Your task to perform on an android device: open the mobile data screen to see how much data has been used Image 0: 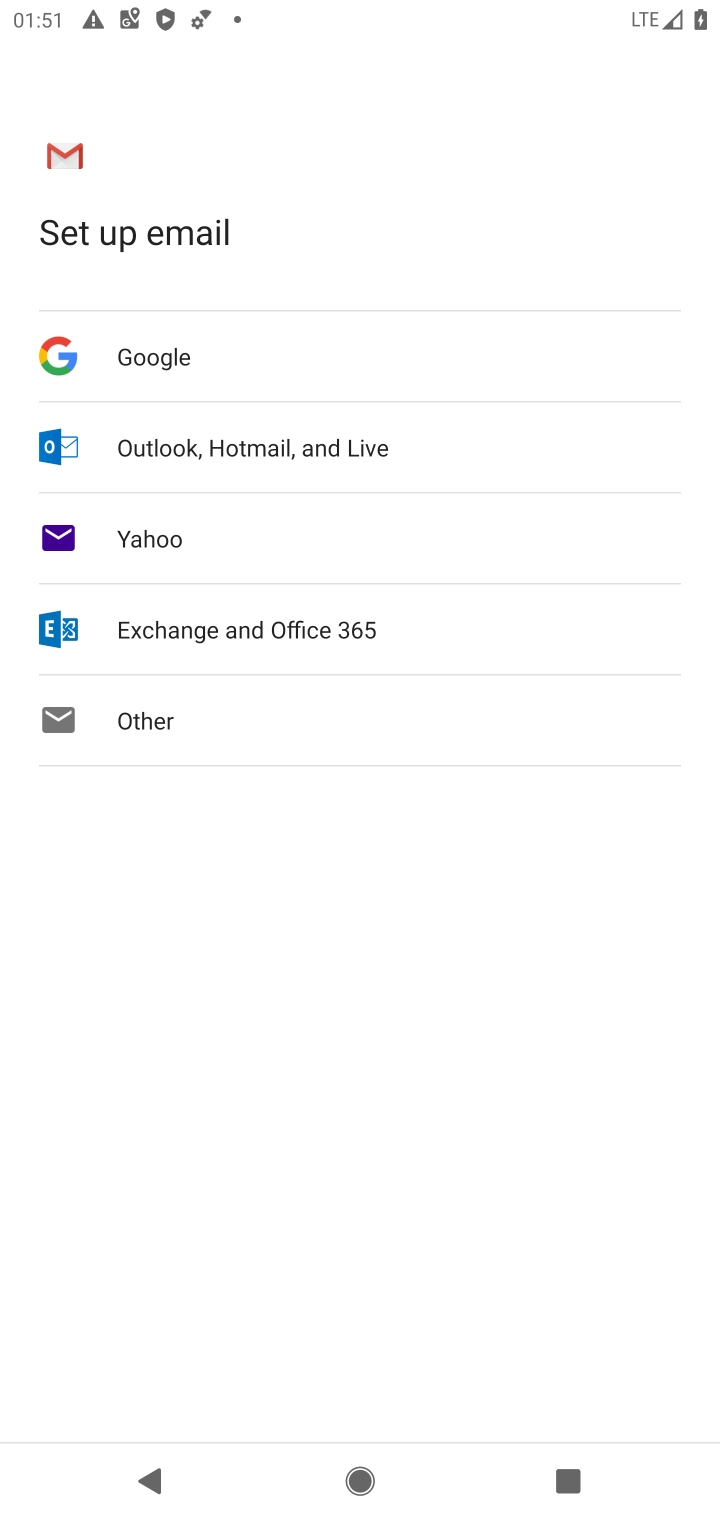
Step 0: press home button
Your task to perform on an android device: open the mobile data screen to see how much data has been used Image 1: 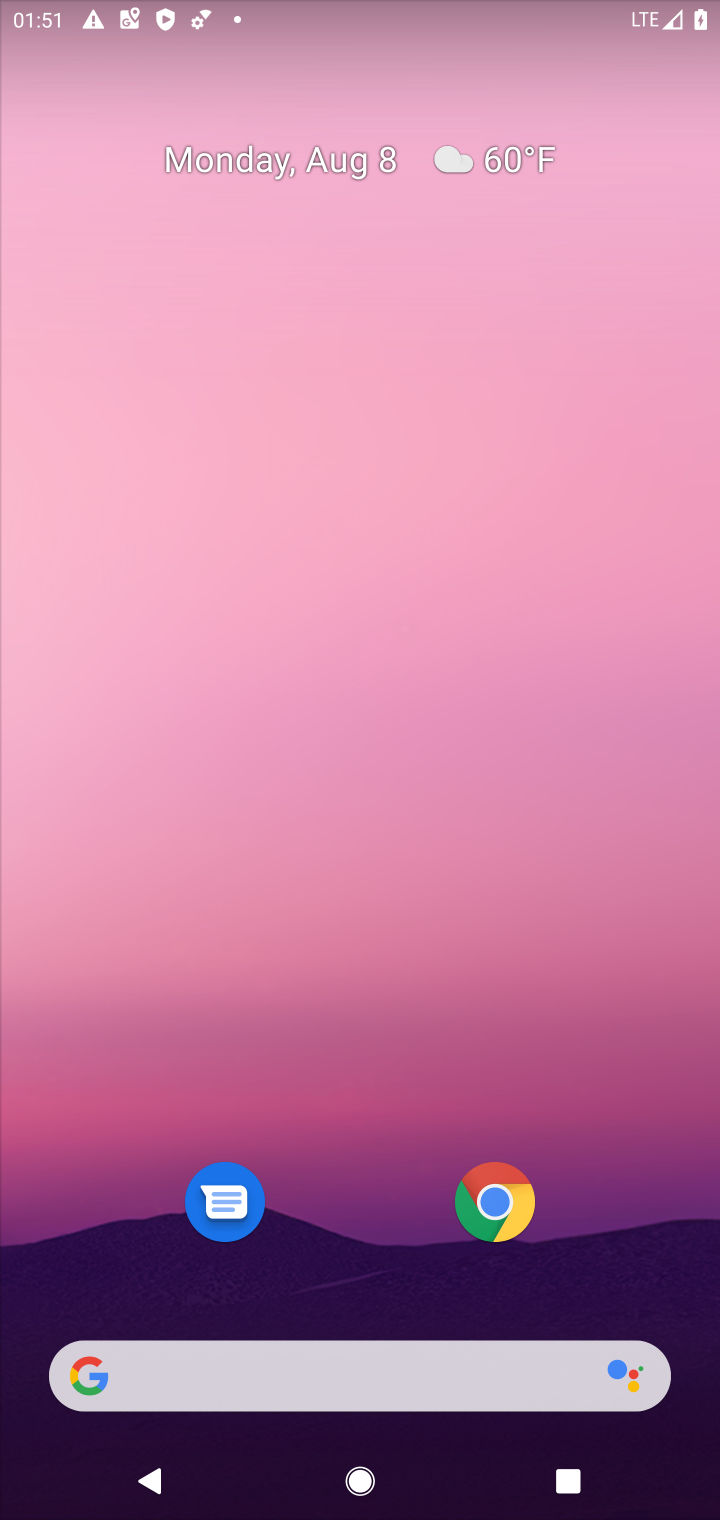
Step 1: drag from (315, 1287) to (338, 25)
Your task to perform on an android device: open the mobile data screen to see how much data has been used Image 2: 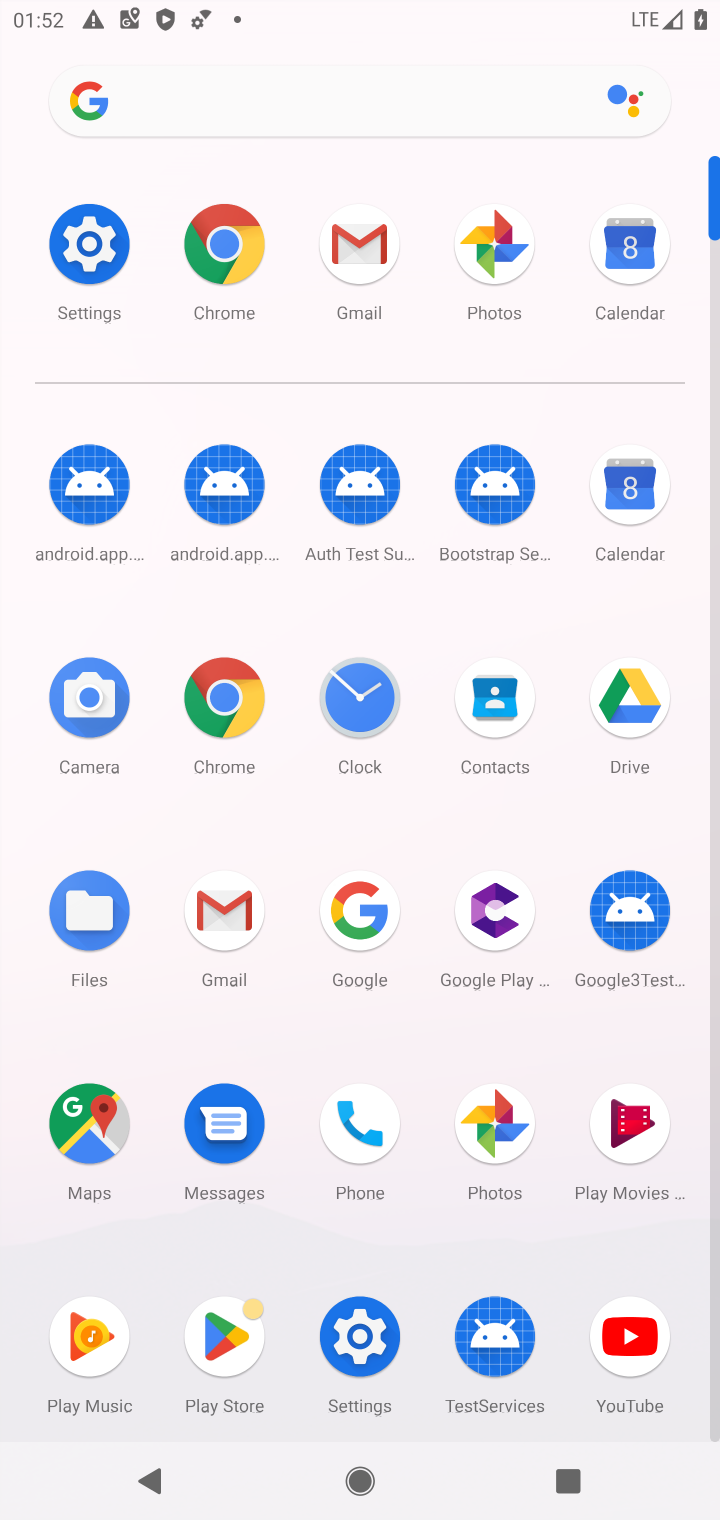
Step 2: click (366, 1361)
Your task to perform on an android device: open the mobile data screen to see how much data has been used Image 3: 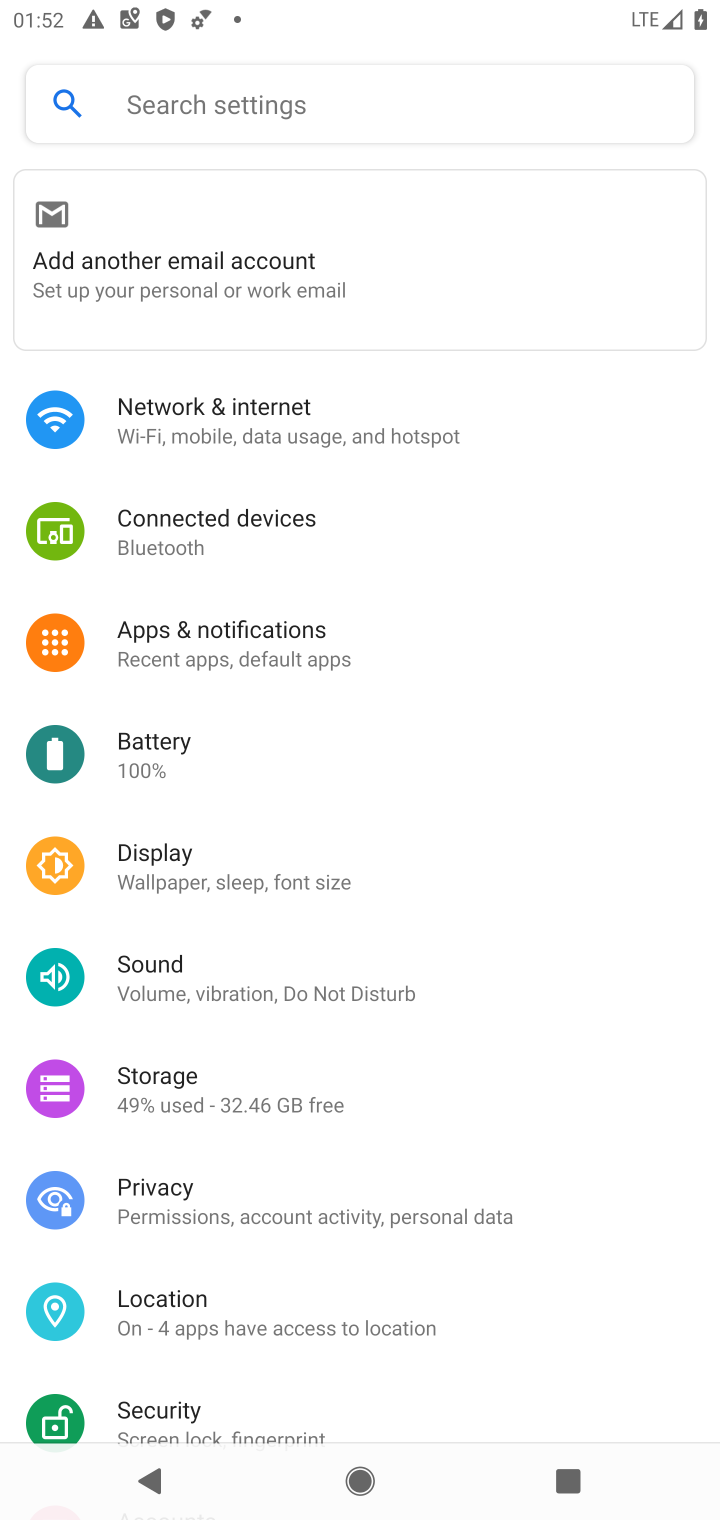
Step 3: click (228, 431)
Your task to perform on an android device: open the mobile data screen to see how much data has been used Image 4: 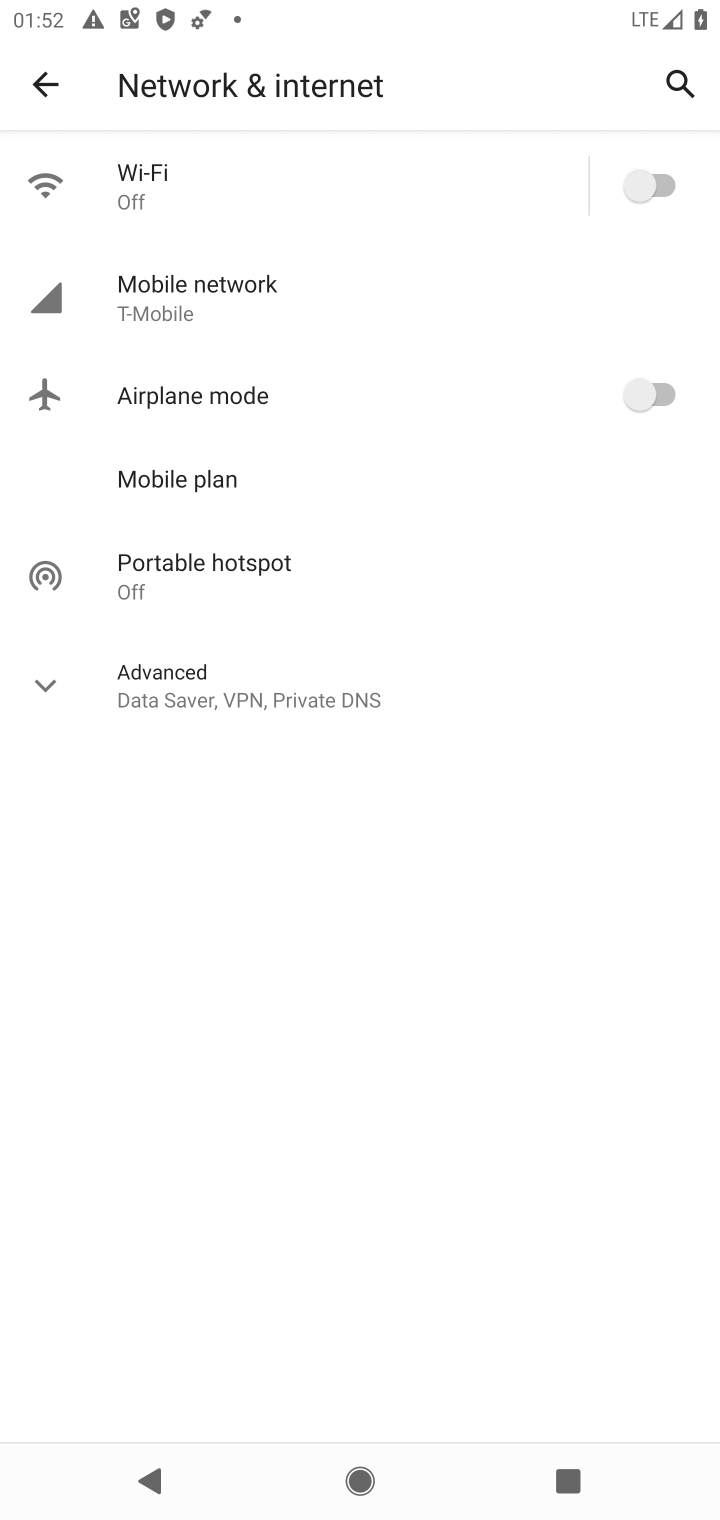
Step 4: click (162, 306)
Your task to perform on an android device: open the mobile data screen to see how much data has been used Image 5: 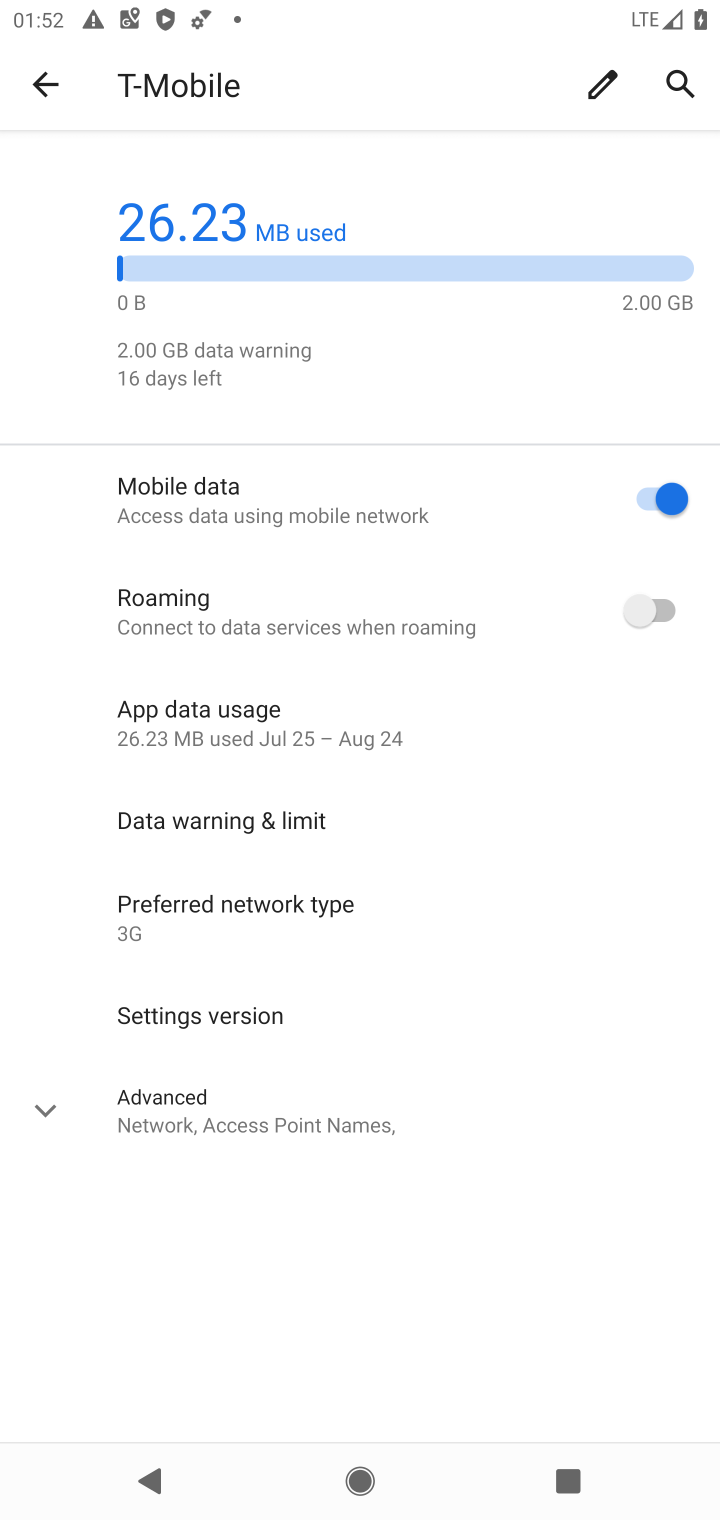
Step 5: task complete